Your task to perform on an android device: change alarm snooze length Image 0: 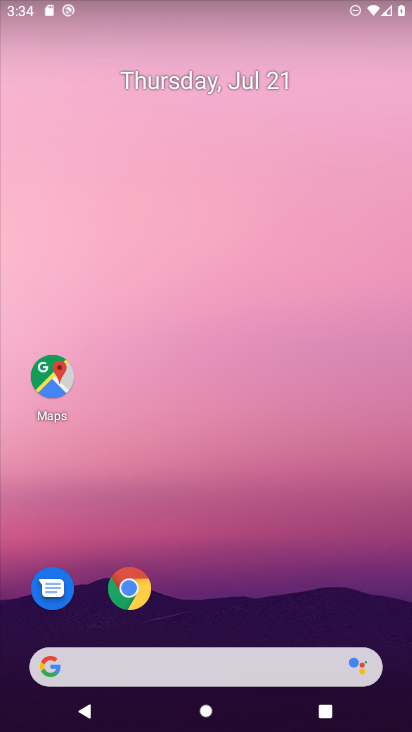
Step 0: drag from (214, 609) to (356, 9)
Your task to perform on an android device: change alarm snooze length Image 1: 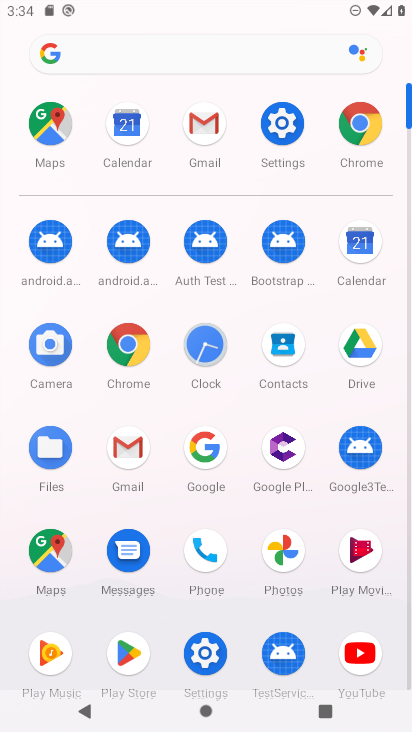
Step 1: click (214, 353)
Your task to perform on an android device: change alarm snooze length Image 2: 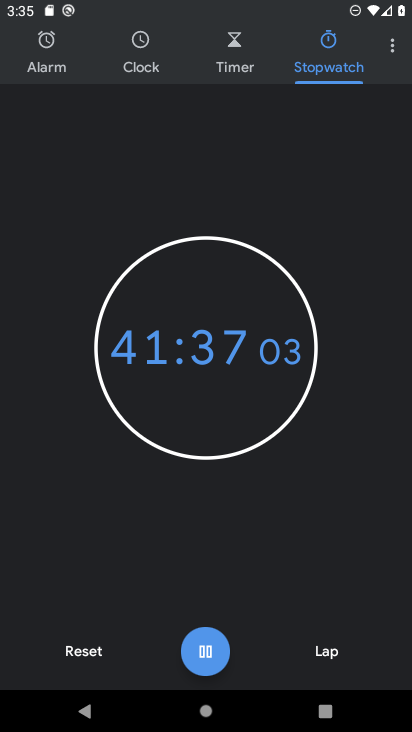
Step 2: click (392, 54)
Your task to perform on an android device: change alarm snooze length Image 3: 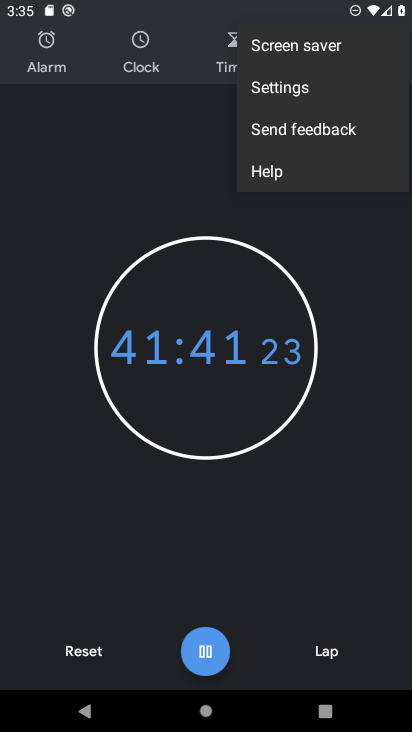
Step 3: click (284, 85)
Your task to perform on an android device: change alarm snooze length Image 4: 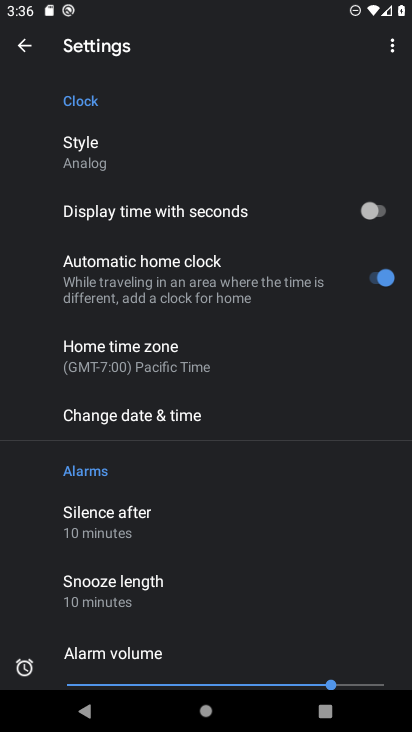
Step 4: click (124, 607)
Your task to perform on an android device: change alarm snooze length Image 5: 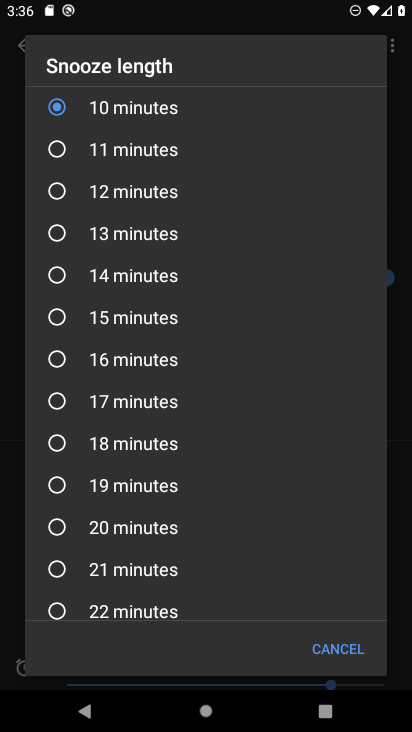
Step 5: click (75, 230)
Your task to perform on an android device: change alarm snooze length Image 6: 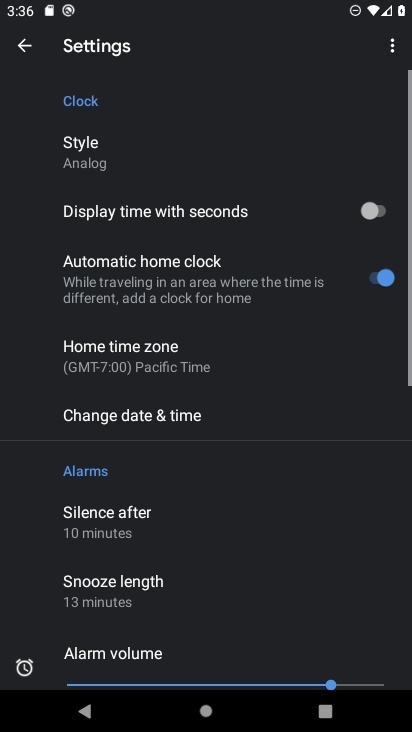
Step 6: task complete